Your task to perform on an android device: Turn on the flashlight Image 0: 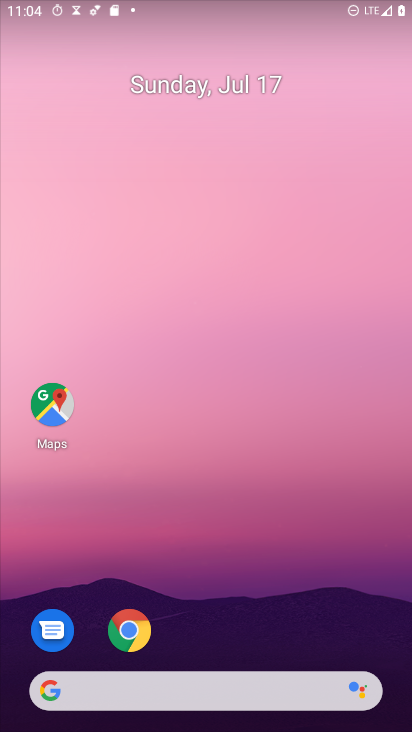
Step 0: drag from (194, 70) to (241, 523)
Your task to perform on an android device: Turn on the flashlight Image 1: 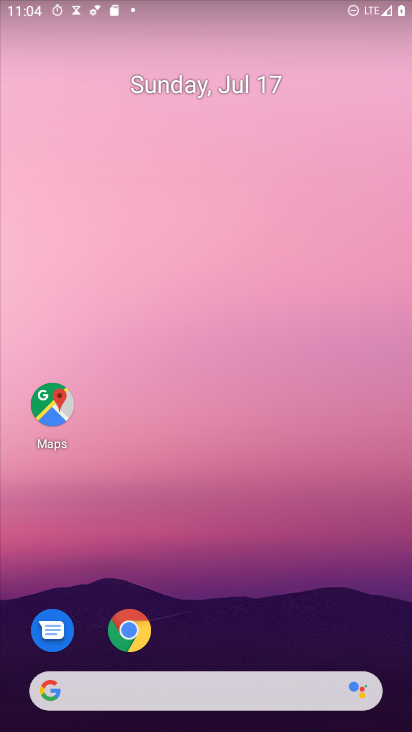
Step 1: task complete